Your task to perform on an android device: What's the weather today? Image 0: 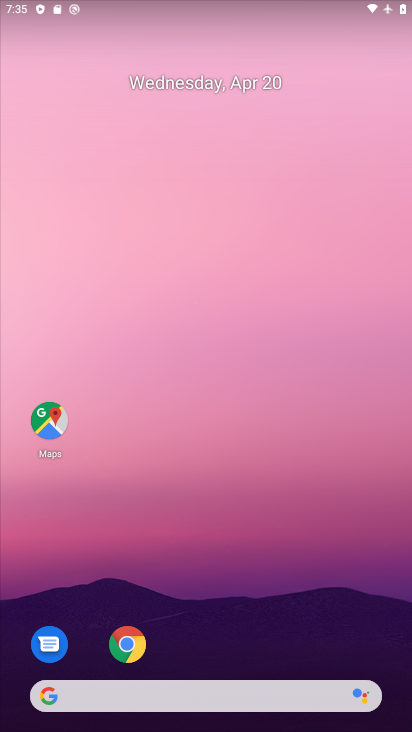
Step 0: drag from (317, 621) to (252, 90)
Your task to perform on an android device: What's the weather today? Image 1: 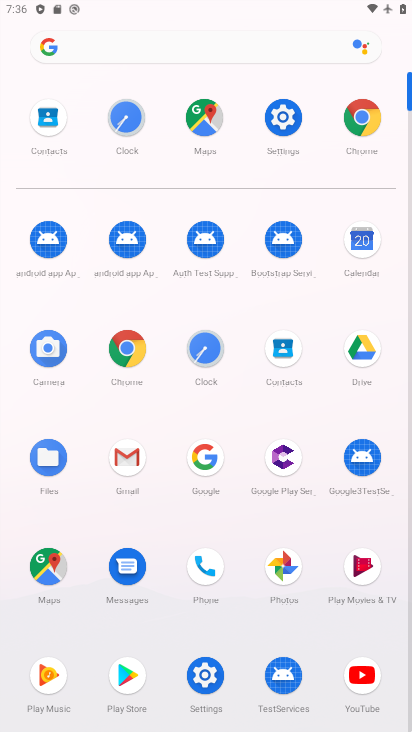
Step 1: press back button
Your task to perform on an android device: What's the weather today? Image 2: 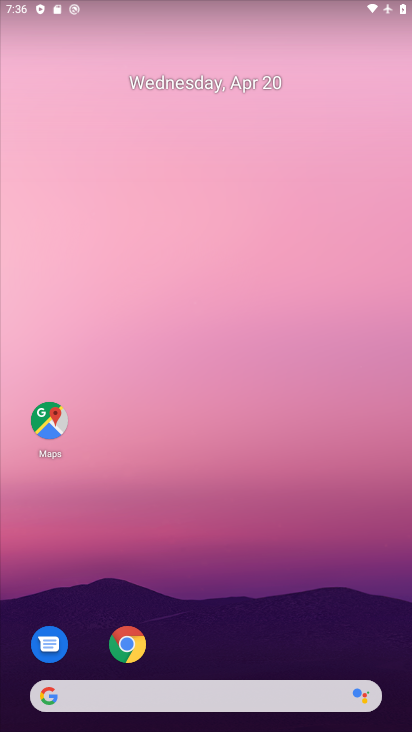
Step 2: click (198, 691)
Your task to perform on an android device: What's the weather today? Image 3: 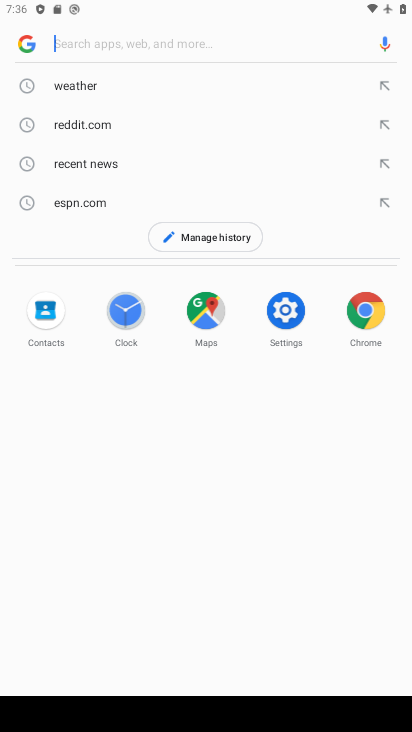
Step 3: click (125, 89)
Your task to perform on an android device: What's the weather today? Image 4: 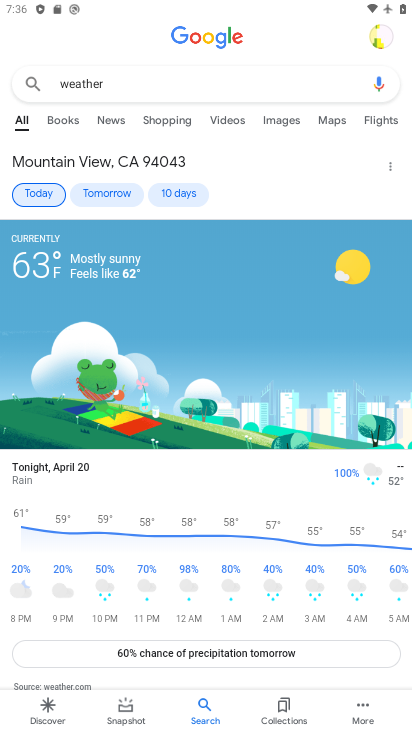
Step 4: task complete